Your task to perform on an android device: Open Chrome and go to the settings page Image 0: 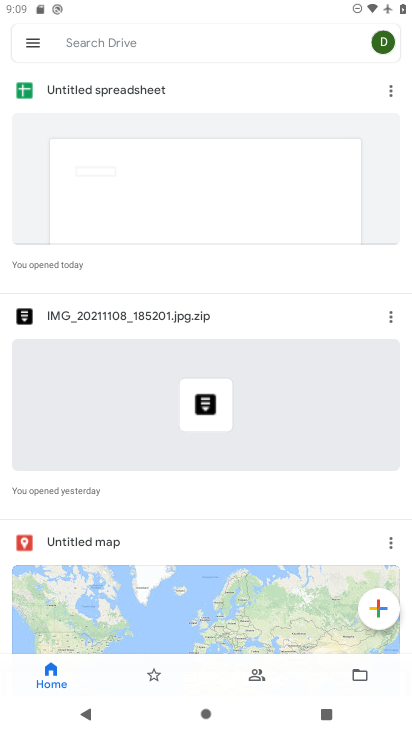
Step 0: press home button
Your task to perform on an android device: Open Chrome and go to the settings page Image 1: 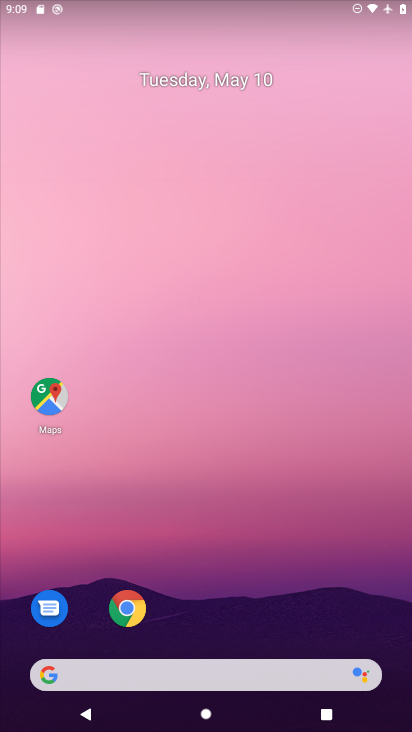
Step 1: drag from (250, 589) to (290, 242)
Your task to perform on an android device: Open Chrome and go to the settings page Image 2: 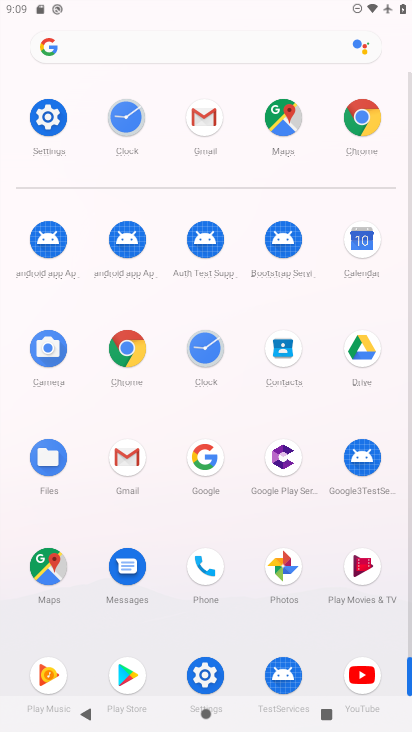
Step 2: click (128, 346)
Your task to perform on an android device: Open Chrome and go to the settings page Image 3: 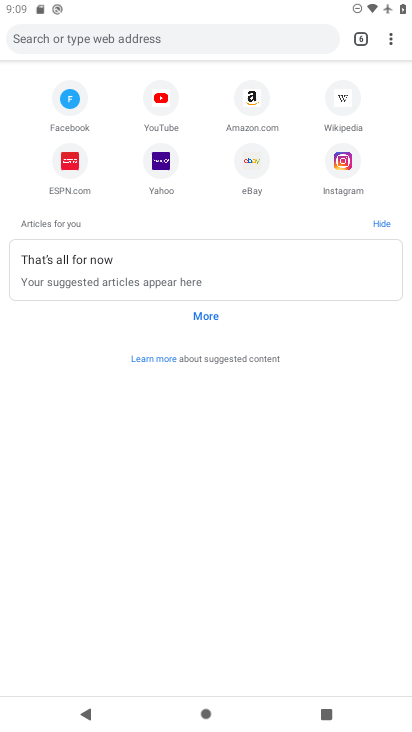
Step 3: click (380, 31)
Your task to perform on an android device: Open Chrome and go to the settings page Image 4: 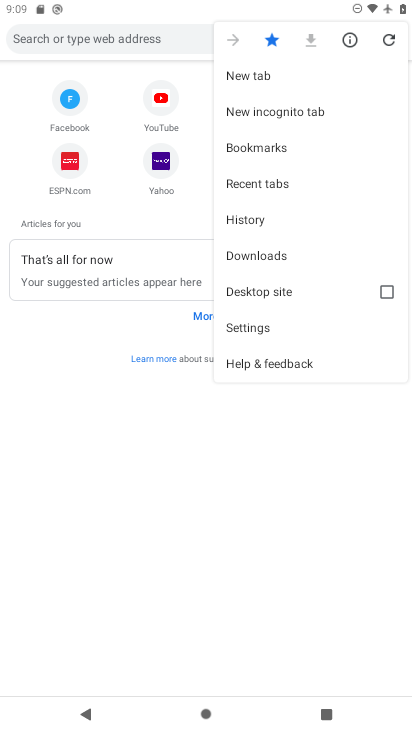
Step 4: click (251, 327)
Your task to perform on an android device: Open Chrome and go to the settings page Image 5: 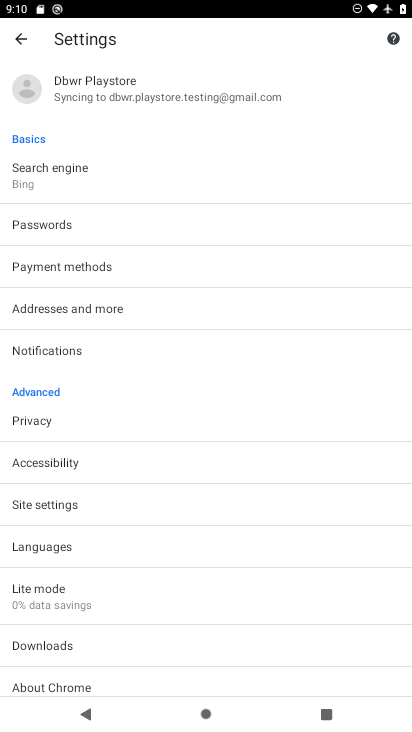
Step 5: task complete